Your task to perform on an android device: Go to notification settings Image 0: 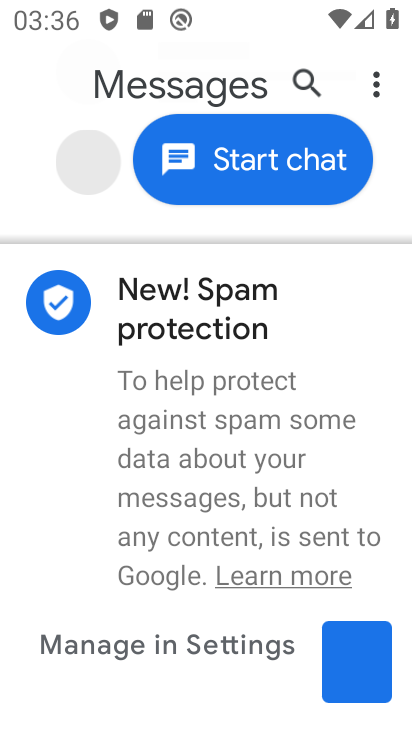
Step 0: press home button
Your task to perform on an android device: Go to notification settings Image 1: 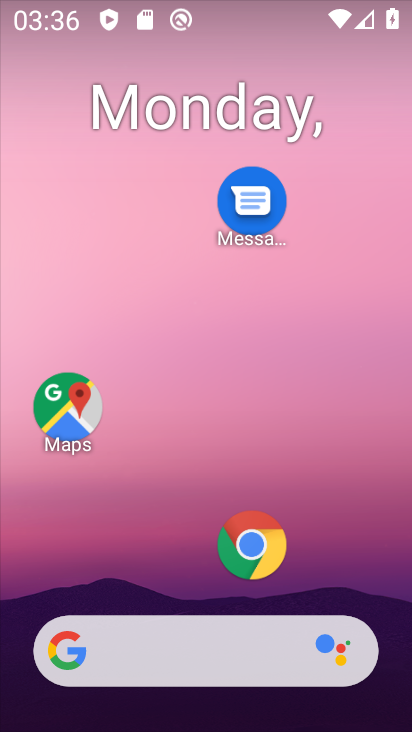
Step 1: drag from (161, 520) to (282, 92)
Your task to perform on an android device: Go to notification settings Image 2: 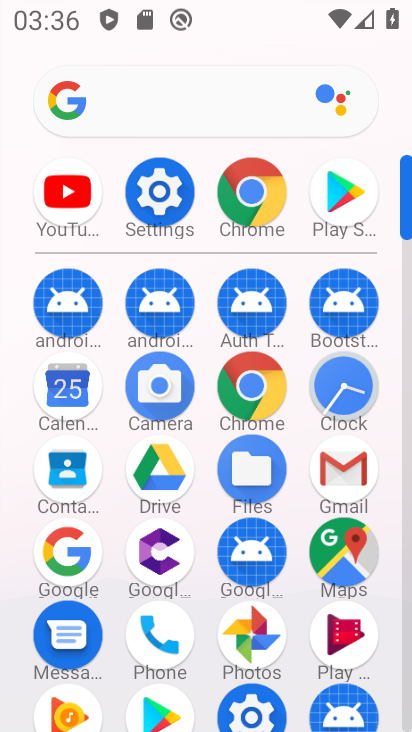
Step 2: click (159, 189)
Your task to perform on an android device: Go to notification settings Image 3: 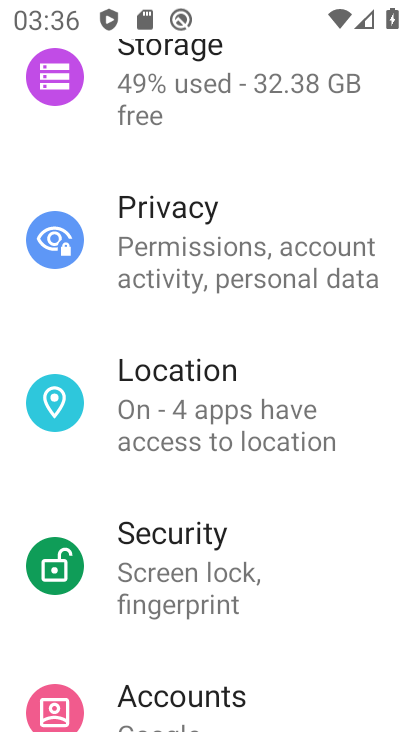
Step 3: drag from (219, 191) to (196, 674)
Your task to perform on an android device: Go to notification settings Image 4: 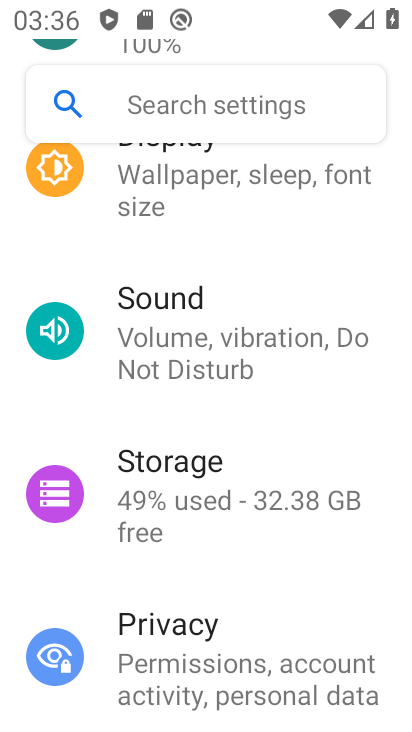
Step 4: drag from (226, 266) to (197, 669)
Your task to perform on an android device: Go to notification settings Image 5: 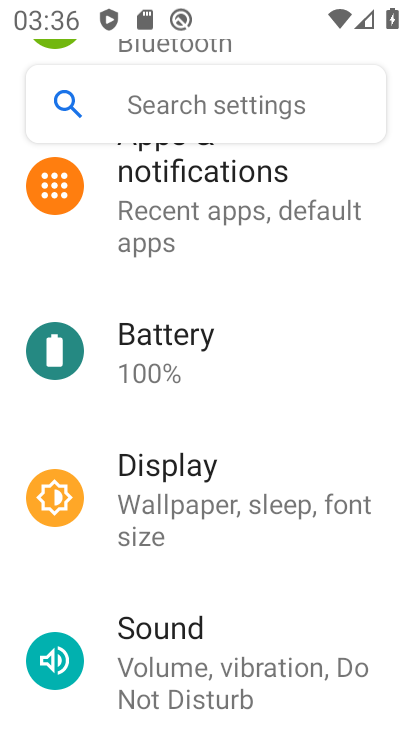
Step 5: drag from (221, 213) to (190, 649)
Your task to perform on an android device: Go to notification settings Image 6: 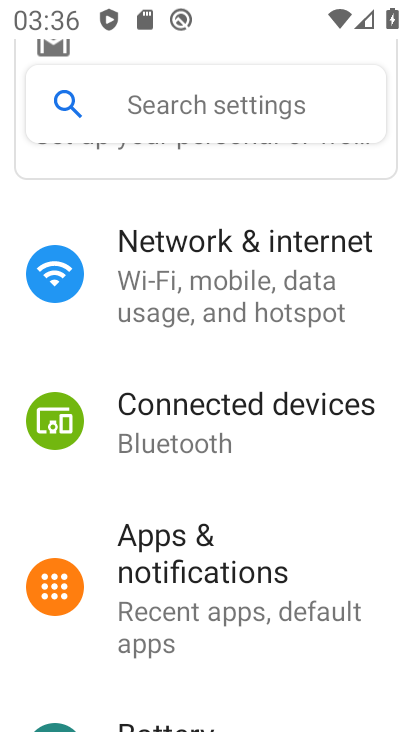
Step 6: click (200, 598)
Your task to perform on an android device: Go to notification settings Image 7: 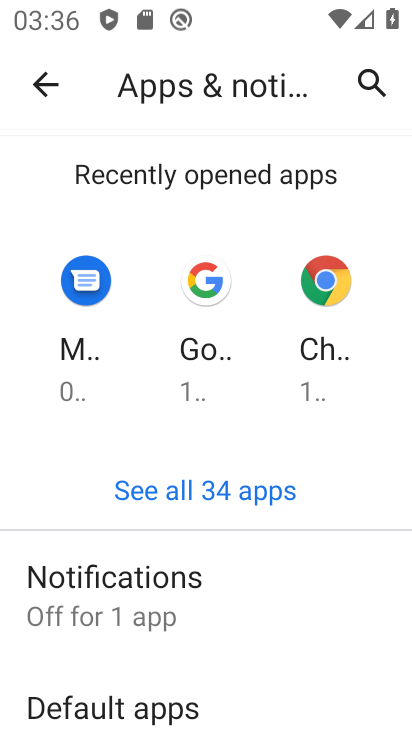
Step 7: task complete